Your task to perform on an android device: Go to eBay Image 0: 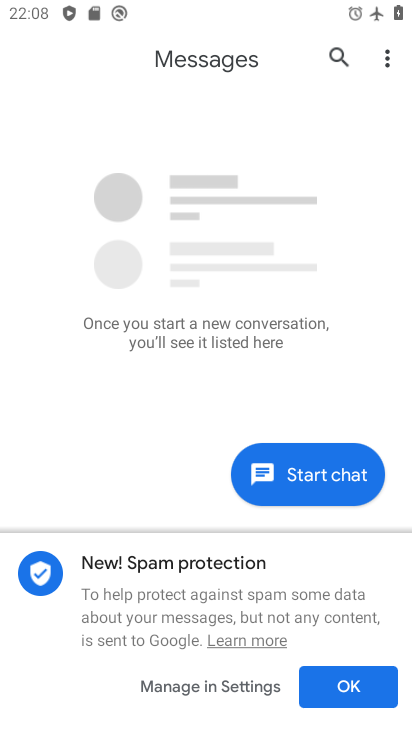
Step 0: press home button
Your task to perform on an android device: Go to eBay Image 1: 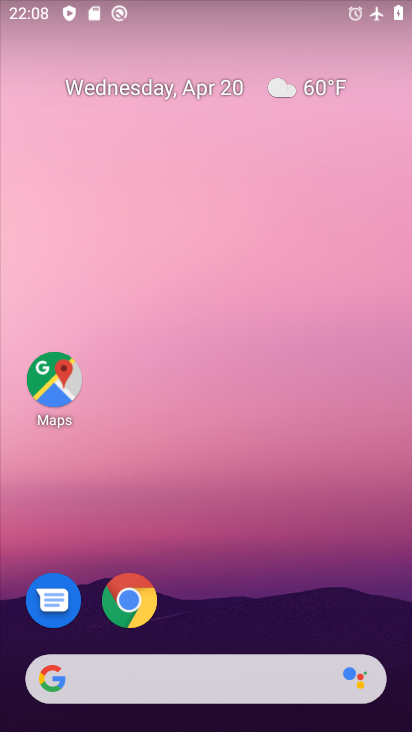
Step 1: drag from (210, 647) to (169, 21)
Your task to perform on an android device: Go to eBay Image 2: 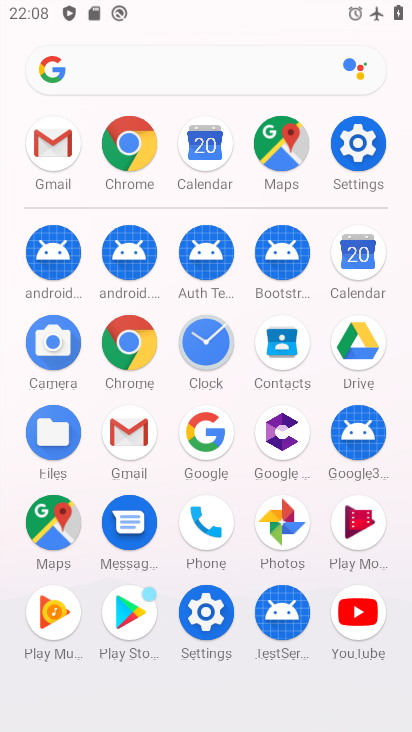
Step 2: click (118, 341)
Your task to perform on an android device: Go to eBay Image 3: 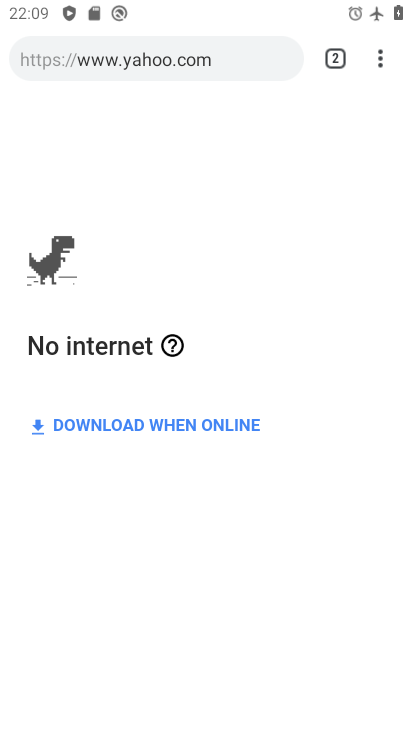
Step 3: click (332, 50)
Your task to perform on an android device: Go to eBay Image 4: 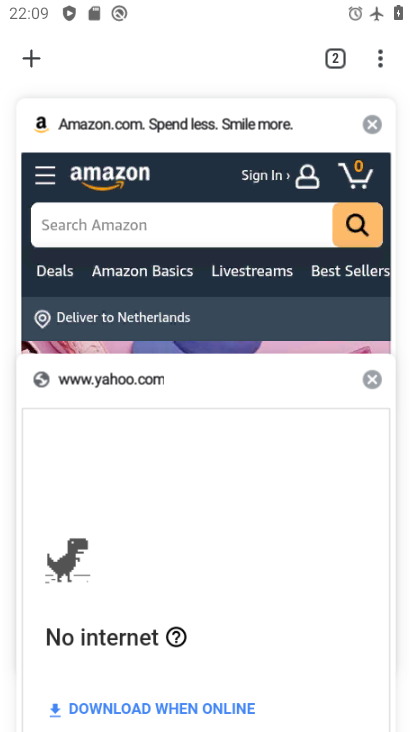
Step 4: click (31, 63)
Your task to perform on an android device: Go to eBay Image 5: 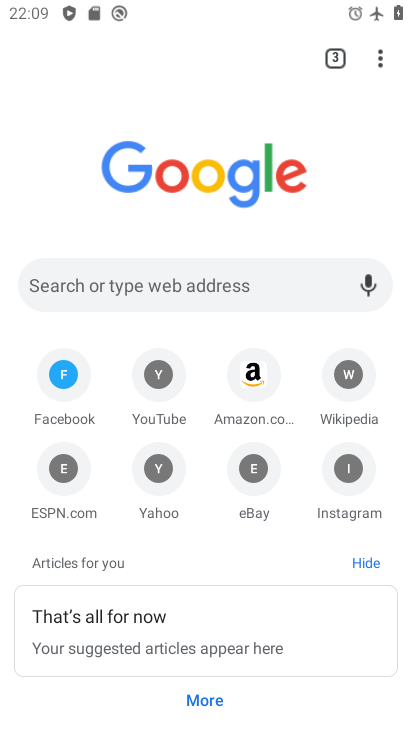
Step 5: click (256, 470)
Your task to perform on an android device: Go to eBay Image 6: 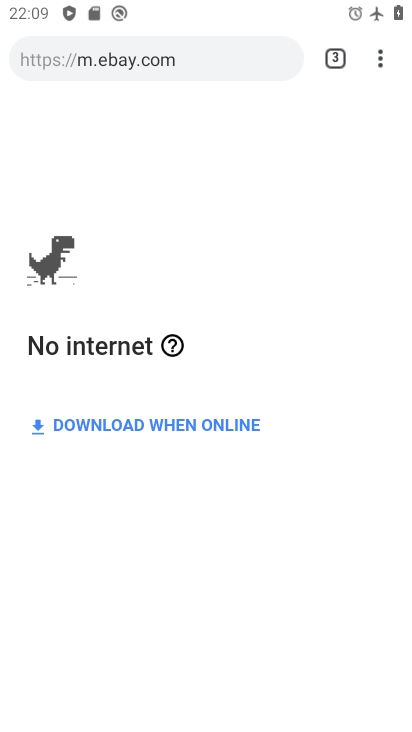
Step 6: task complete